Your task to perform on an android device: Open Google Image 0: 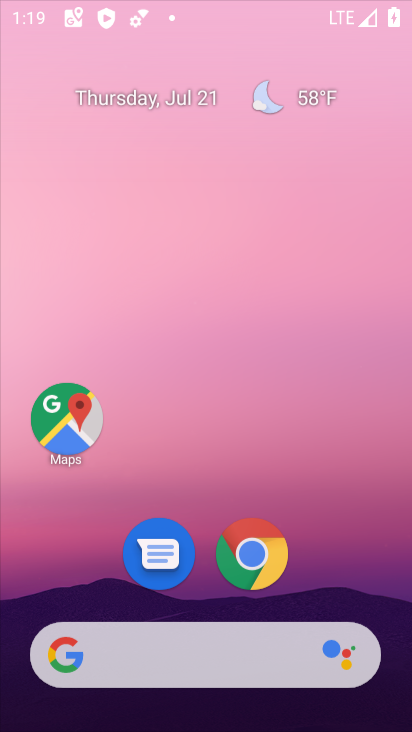
Step 0: press home button
Your task to perform on an android device: Open Google Image 1: 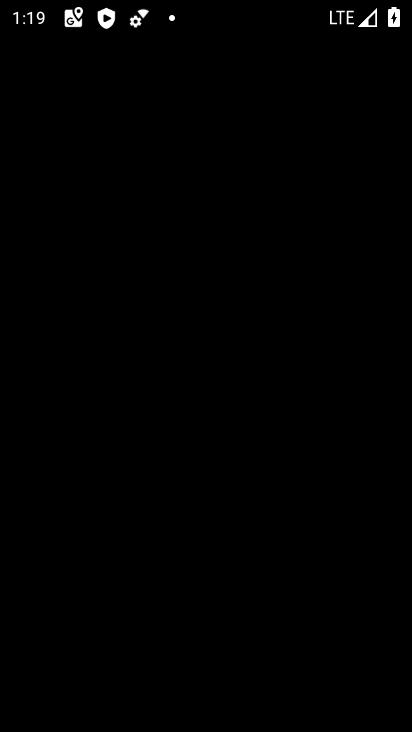
Step 1: press home button
Your task to perform on an android device: Open Google Image 2: 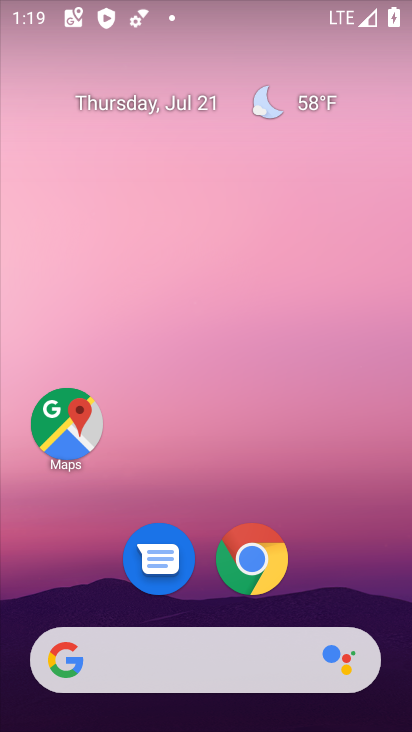
Step 2: drag from (359, 570) to (356, 126)
Your task to perform on an android device: Open Google Image 3: 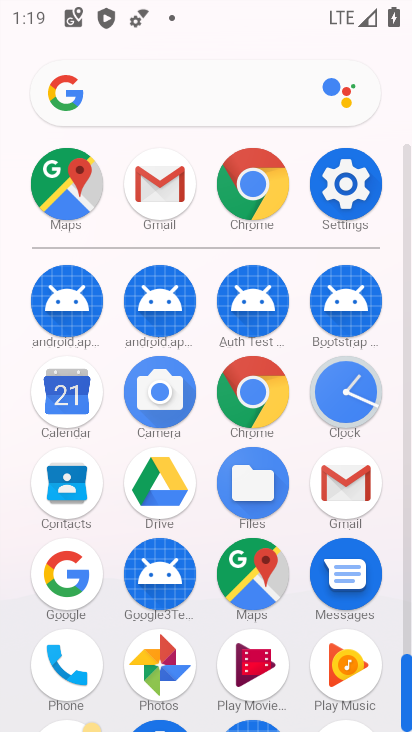
Step 3: click (69, 577)
Your task to perform on an android device: Open Google Image 4: 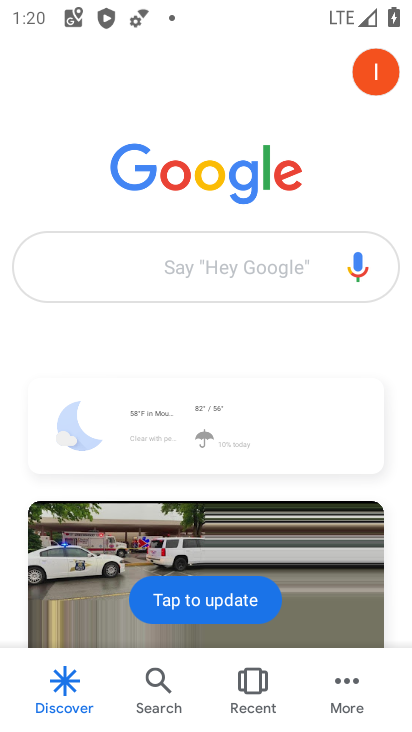
Step 4: task complete